Your task to perform on an android device: change the upload size in google photos Image 0: 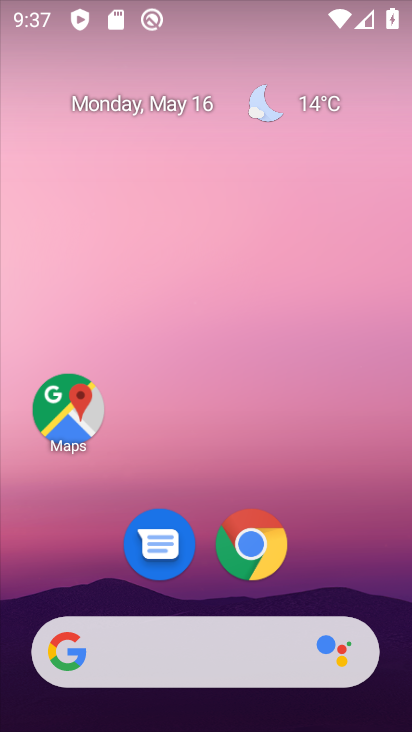
Step 0: drag from (324, 556) to (355, 142)
Your task to perform on an android device: change the upload size in google photos Image 1: 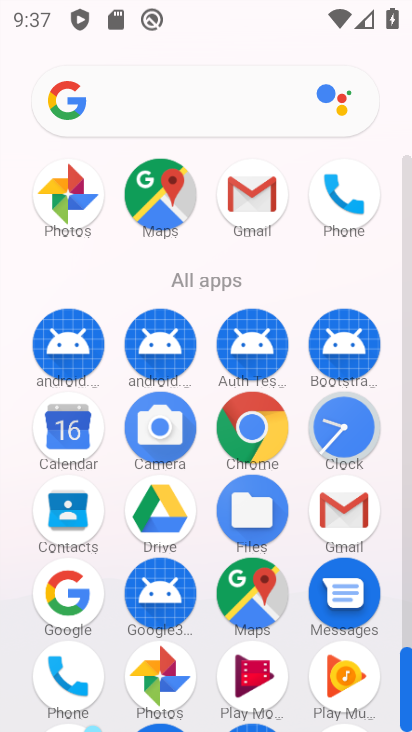
Step 1: click (68, 199)
Your task to perform on an android device: change the upload size in google photos Image 2: 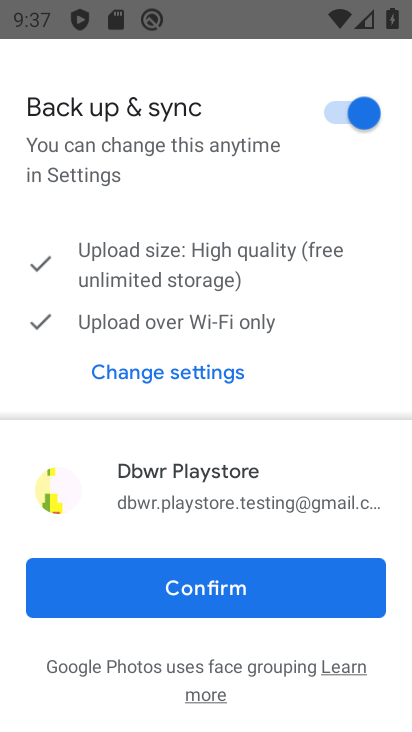
Step 2: click (226, 602)
Your task to perform on an android device: change the upload size in google photos Image 3: 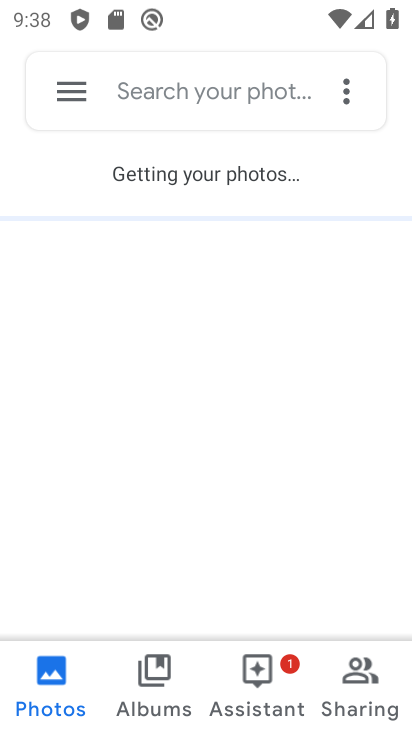
Step 3: click (77, 88)
Your task to perform on an android device: change the upload size in google photos Image 4: 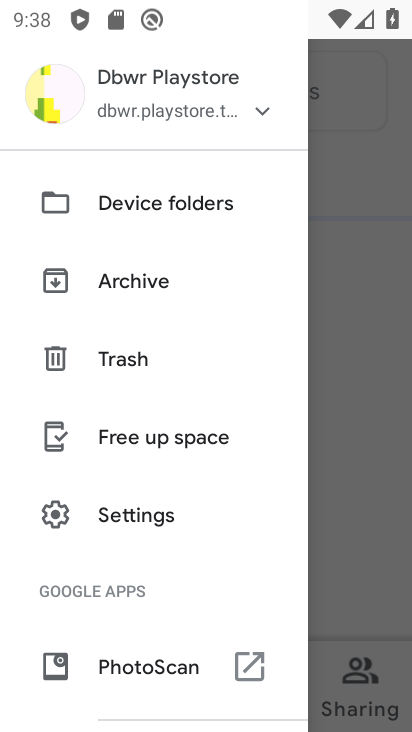
Step 4: click (138, 522)
Your task to perform on an android device: change the upload size in google photos Image 5: 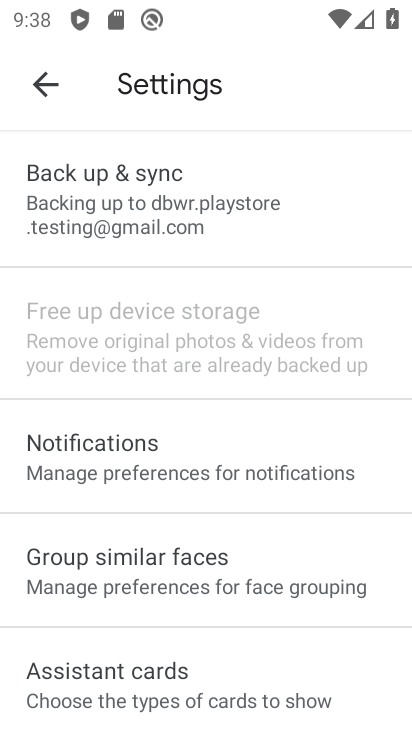
Step 5: click (149, 207)
Your task to perform on an android device: change the upload size in google photos Image 6: 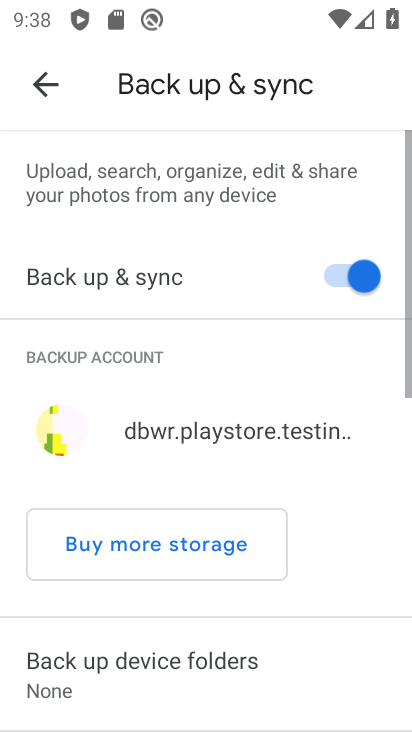
Step 6: drag from (131, 625) to (170, 212)
Your task to perform on an android device: change the upload size in google photos Image 7: 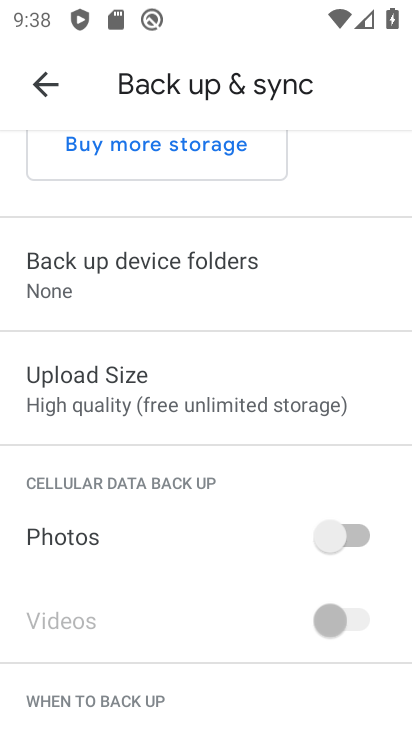
Step 7: click (135, 382)
Your task to perform on an android device: change the upload size in google photos Image 8: 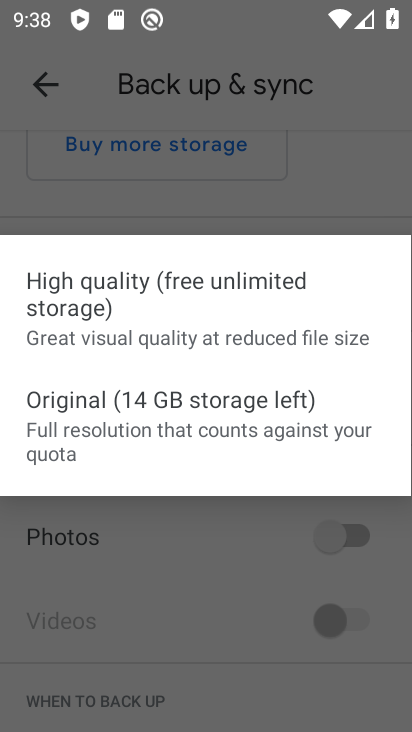
Step 8: click (115, 420)
Your task to perform on an android device: change the upload size in google photos Image 9: 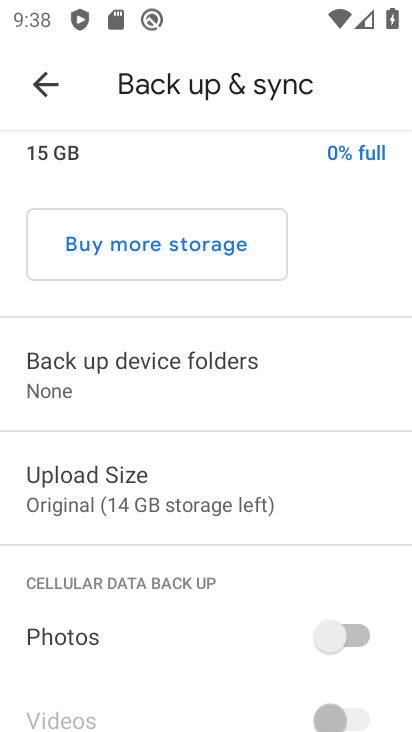
Step 9: task complete